Your task to perform on an android device: Go to Android settings Image 0: 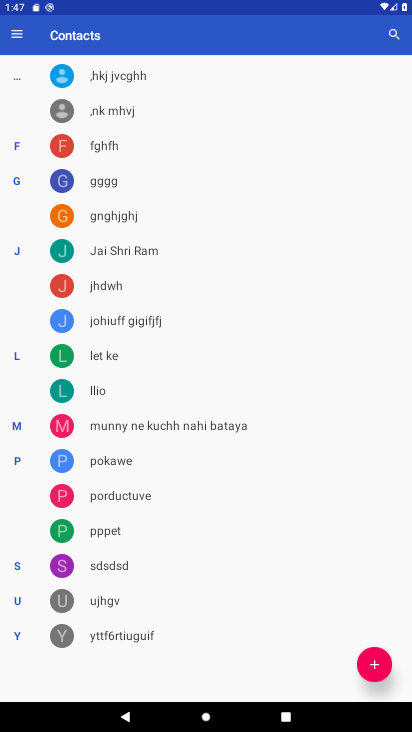
Step 0: press home button
Your task to perform on an android device: Go to Android settings Image 1: 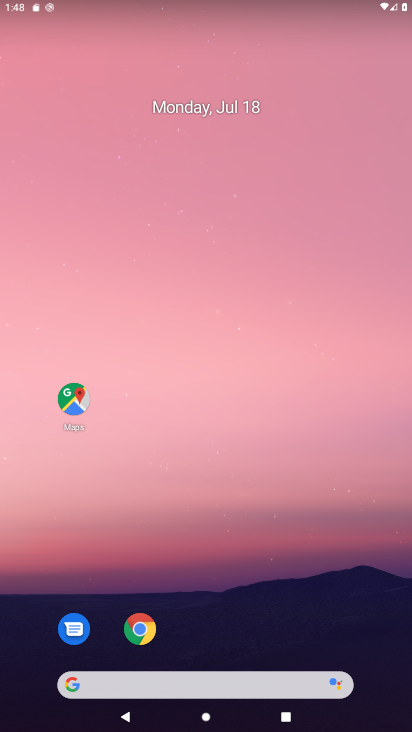
Step 1: drag from (208, 593) to (187, 249)
Your task to perform on an android device: Go to Android settings Image 2: 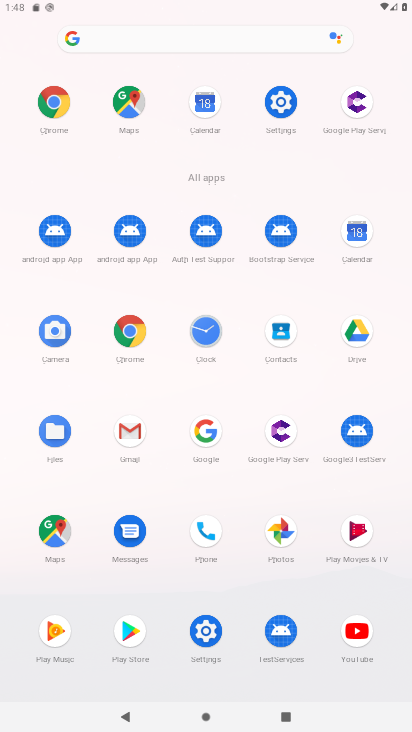
Step 2: click (276, 107)
Your task to perform on an android device: Go to Android settings Image 3: 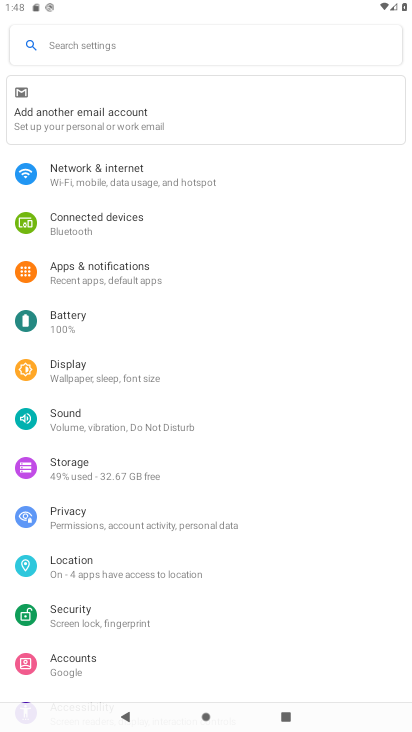
Step 3: click (148, 588)
Your task to perform on an android device: Go to Android settings Image 4: 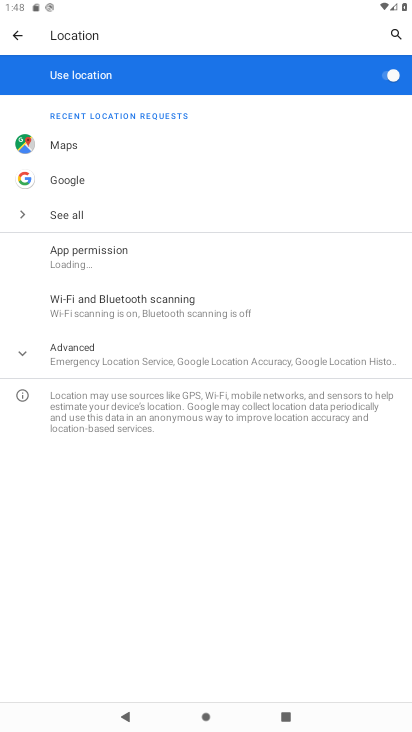
Step 4: click (17, 32)
Your task to perform on an android device: Go to Android settings Image 5: 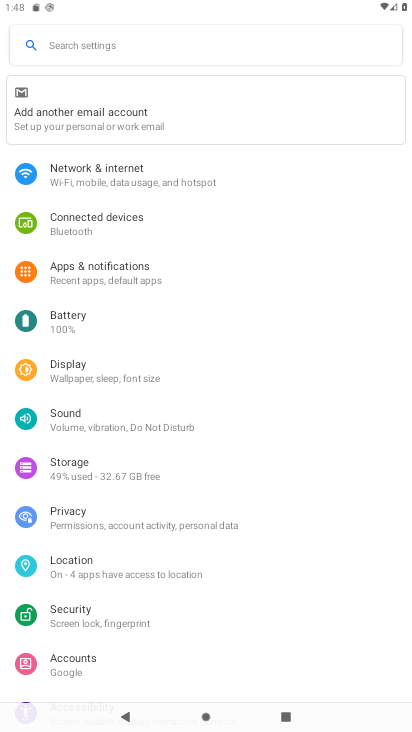
Step 5: drag from (107, 568) to (122, 150)
Your task to perform on an android device: Go to Android settings Image 6: 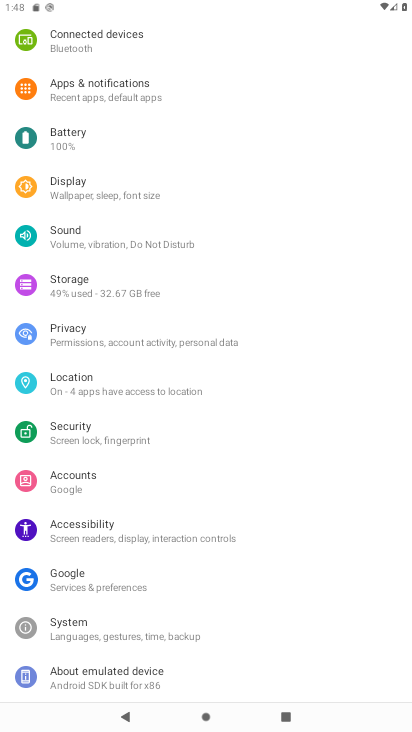
Step 6: click (107, 687)
Your task to perform on an android device: Go to Android settings Image 7: 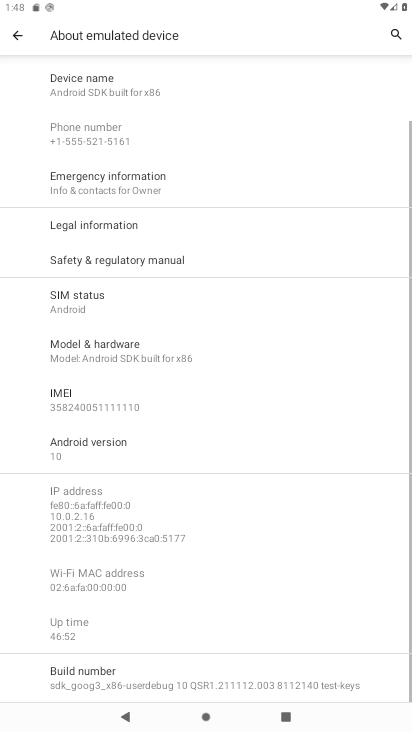
Step 7: click (77, 460)
Your task to perform on an android device: Go to Android settings Image 8: 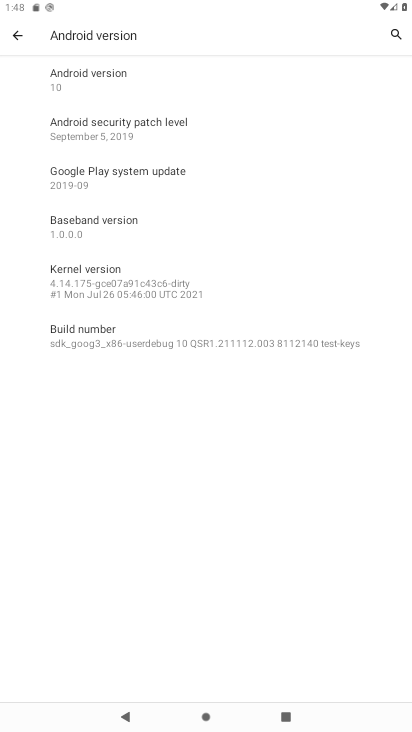
Step 8: task complete